Your task to perform on an android device: change alarm snooze length Image 0: 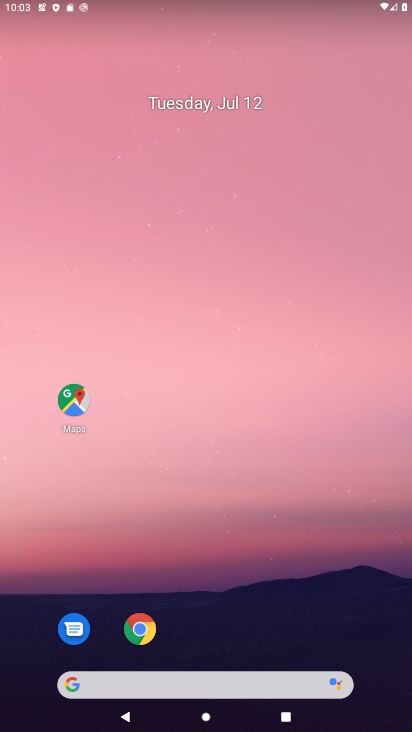
Step 0: drag from (188, 676) to (251, 170)
Your task to perform on an android device: change alarm snooze length Image 1: 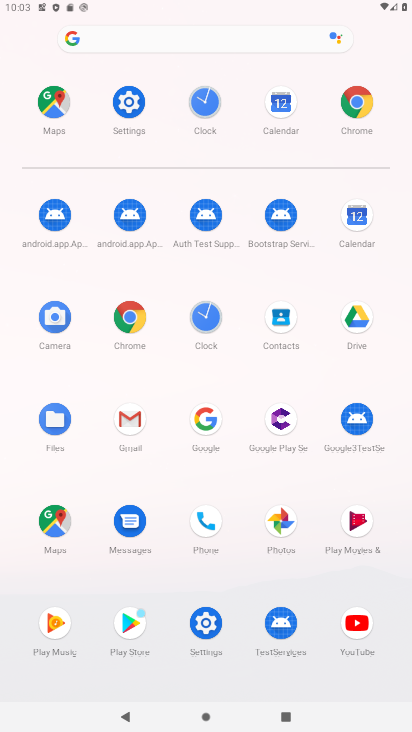
Step 1: click (204, 311)
Your task to perform on an android device: change alarm snooze length Image 2: 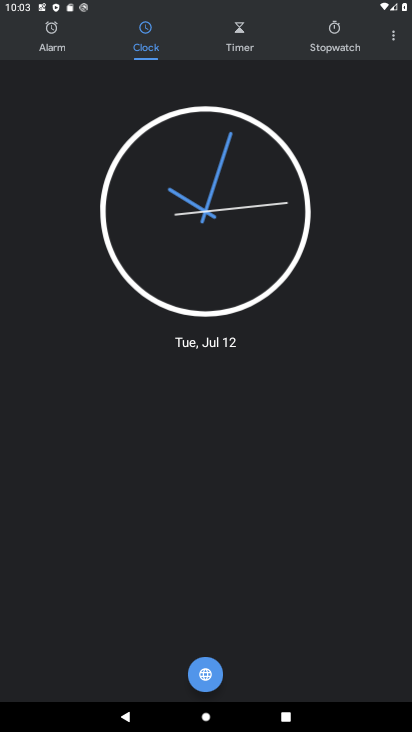
Step 2: drag from (386, 34) to (324, 60)
Your task to perform on an android device: change alarm snooze length Image 3: 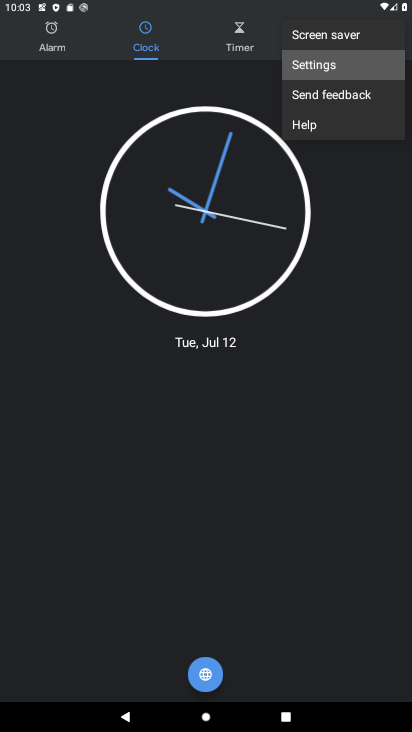
Step 3: click (324, 60)
Your task to perform on an android device: change alarm snooze length Image 4: 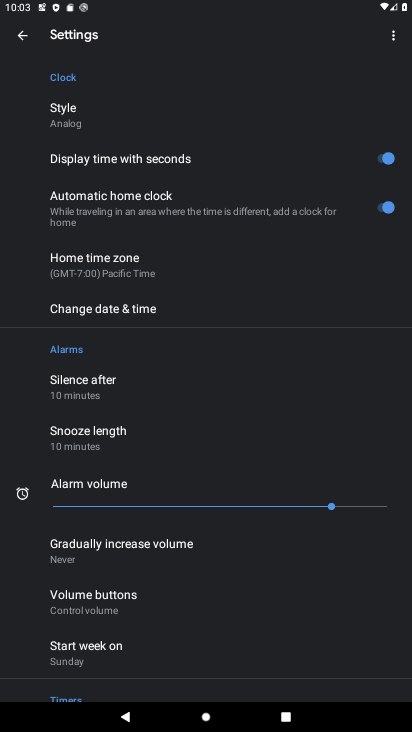
Step 4: click (118, 430)
Your task to perform on an android device: change alarm snooze length Image 5: 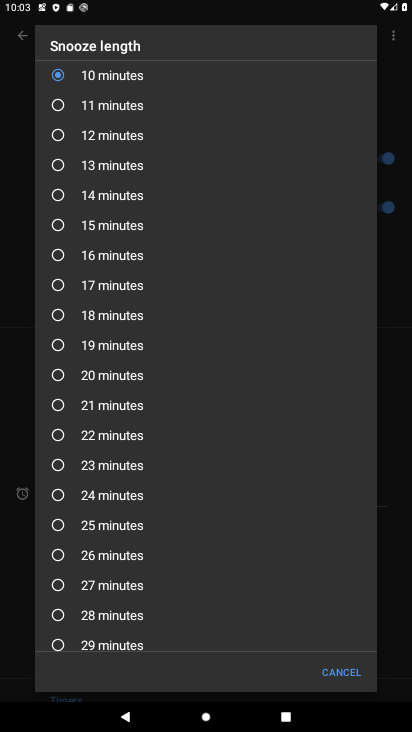
Step 5: click (54, 105)
Your task to perform on an android device: change alarm snooze length Image 6: 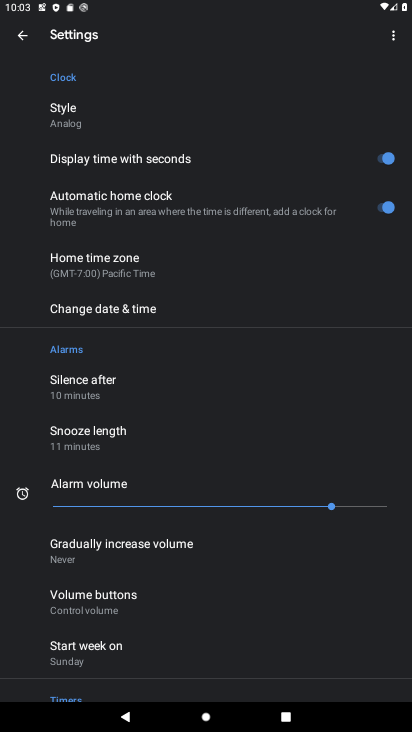
Step 6: task complete